Your task to perform on an android device: open app "Move to iOS" (install if not already installed), go to login, and select forgot password Image 0: 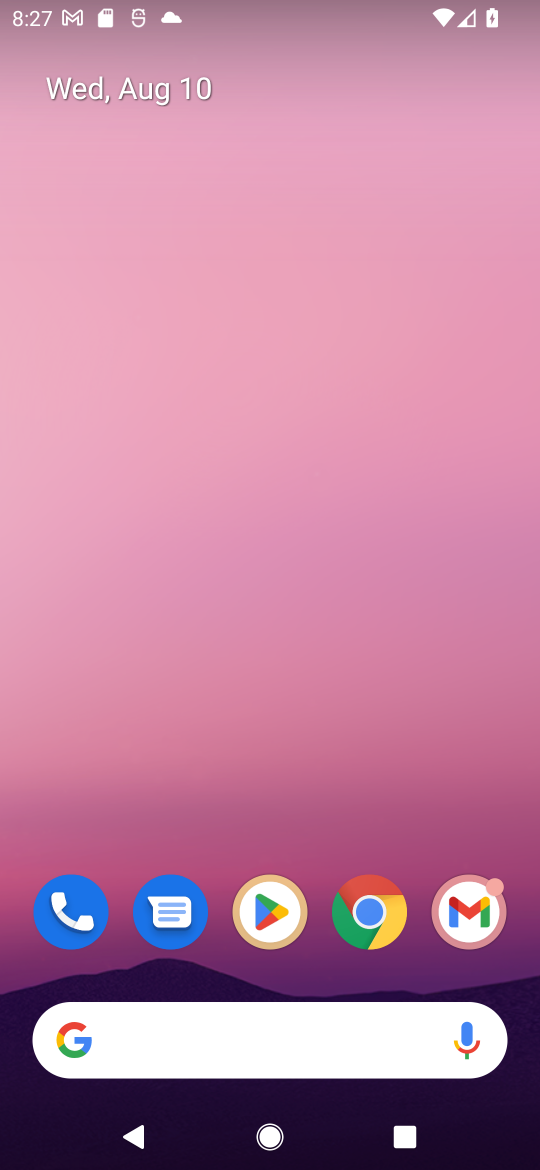
Step 0: drag from (478, 993) to (267, 20)
Your task to perform on an android device: open app "Move to iOS" (install if not already installed), go to login, and select forgot password Image 1: 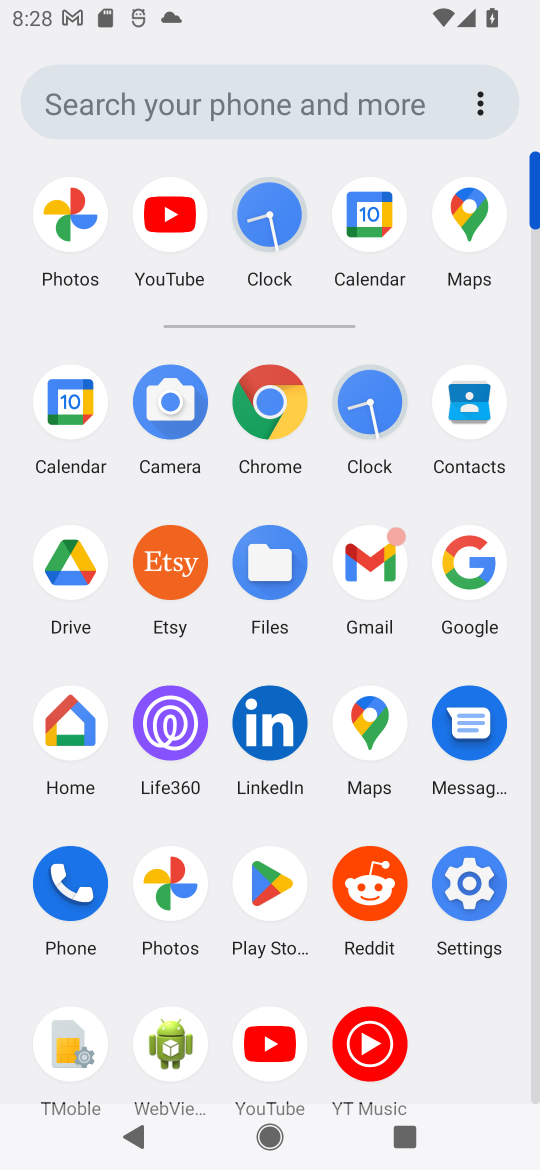
Step 1: click (281, 875)
Your task to perform on an android device: open app "Move to iOS" (install if not already installed), go to login, and select forgot password Image 2: 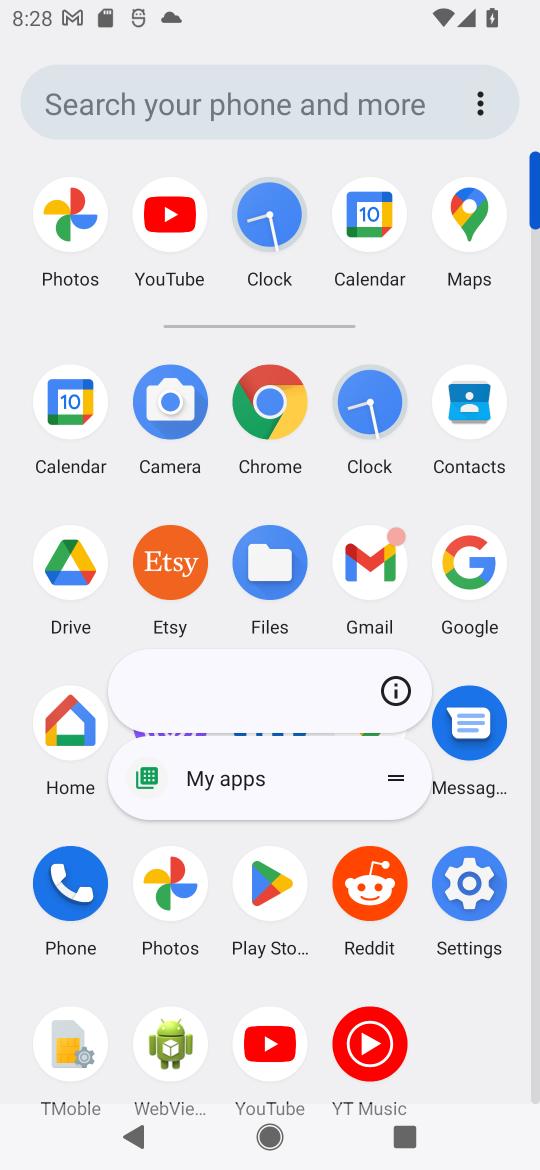
Step 2: click (281, 875)
Your task to perform on an android device: open app "Move to iOS" (install if not already installed), go to login, and select forgot password Image 3: 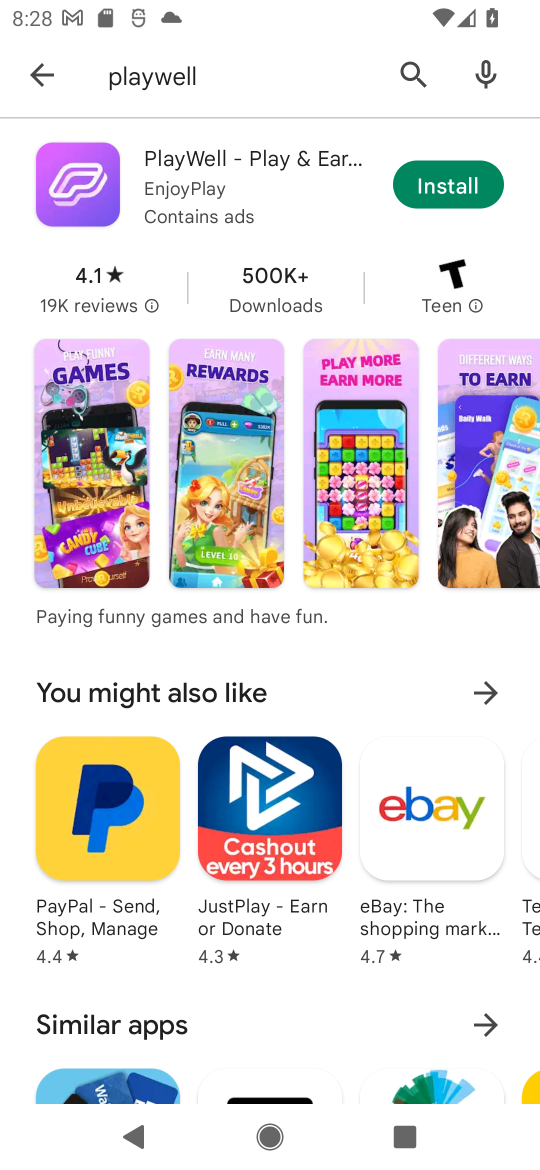
Step 3: press back button
Your task to perform on an android device: open app "Move to iOS" (install if not already installed), go to login, and select forgot password Image 4: 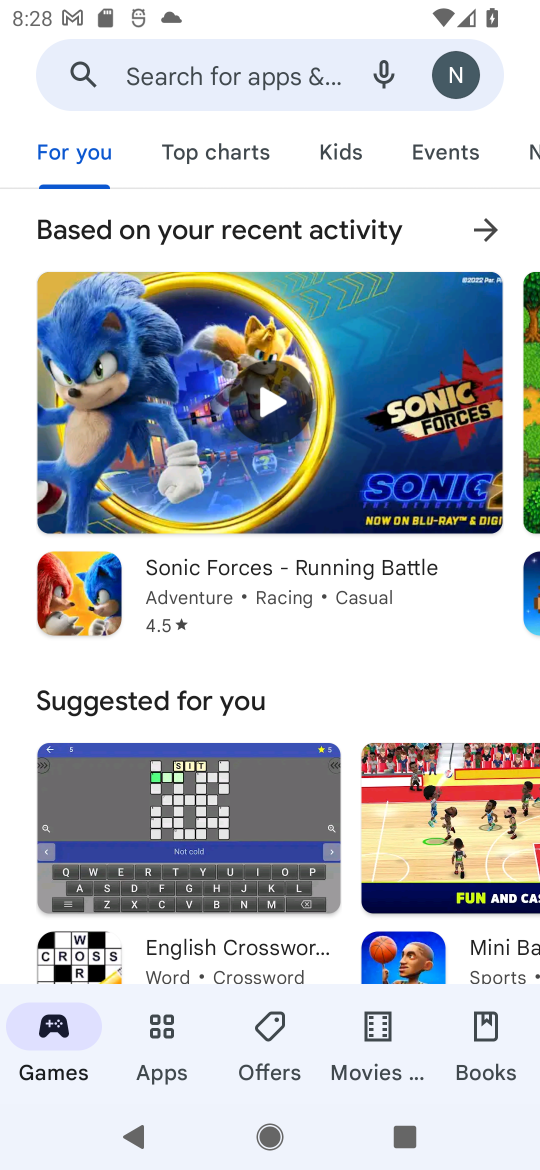
Step 4: click (136, 74)
Your task to perform on an android device: open app "Move to iOS" (install if not already installed), go to login, and select forgot password Image 5: 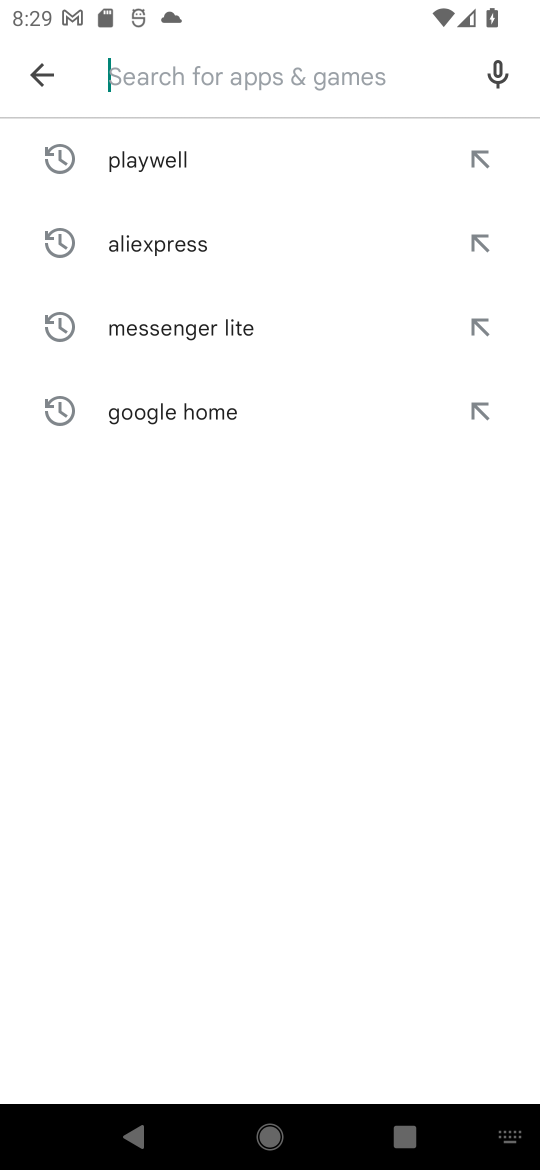
Step 5: type "Move to iOS"
Your task to perform on an android device: open app "Move to iOS" (install if not already installed), go to login, and select forgot password Image 6: 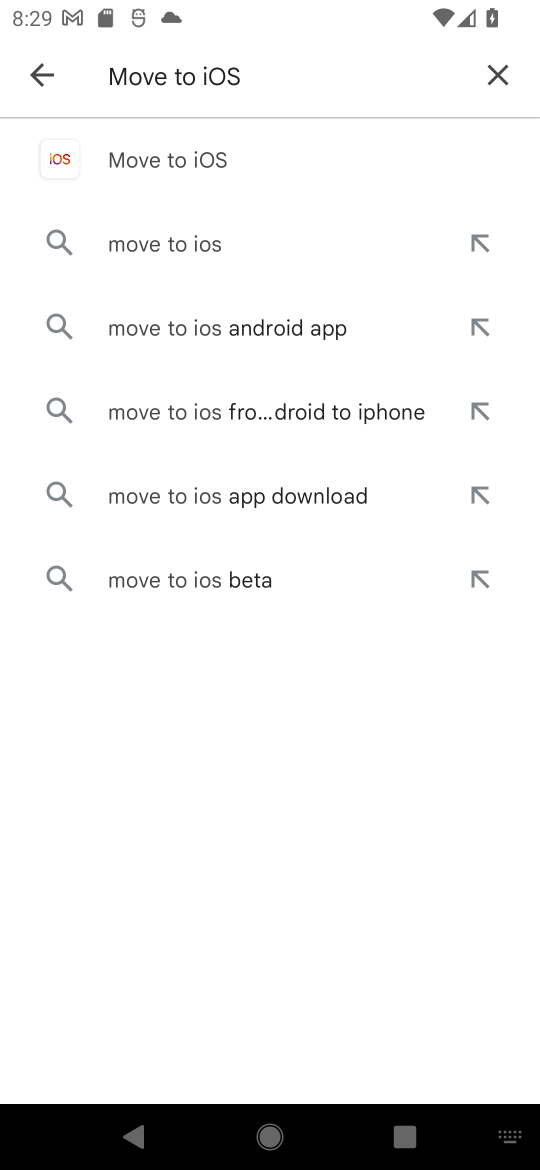
Step 6: click (181, 145)
Your task to perform on an android device: open app "Move to iOS" (install if not already installed), go to login, and select forgot password Image 7: 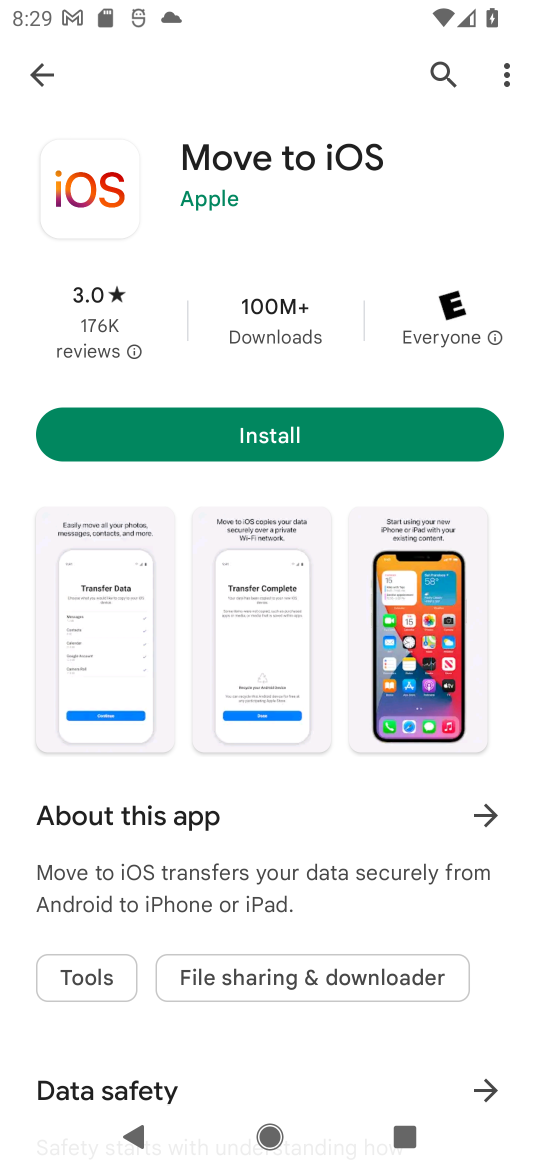
Step 7: task complete